Your task to perform on an android device: When is my next meeting? Image 0: 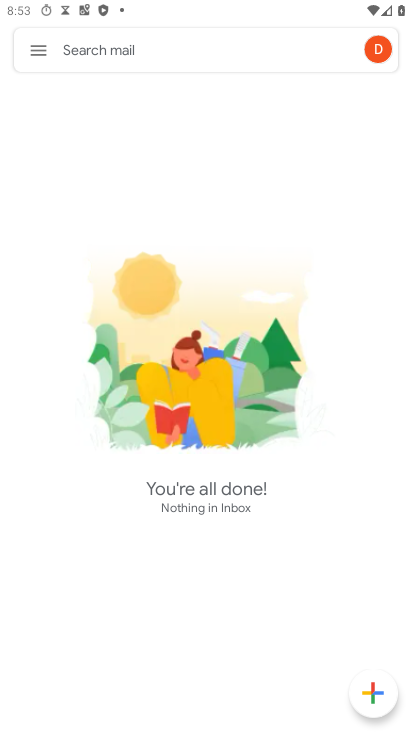
Step 0: press home button
Your task to perform on an android device: When is my next meeting? Image 1: 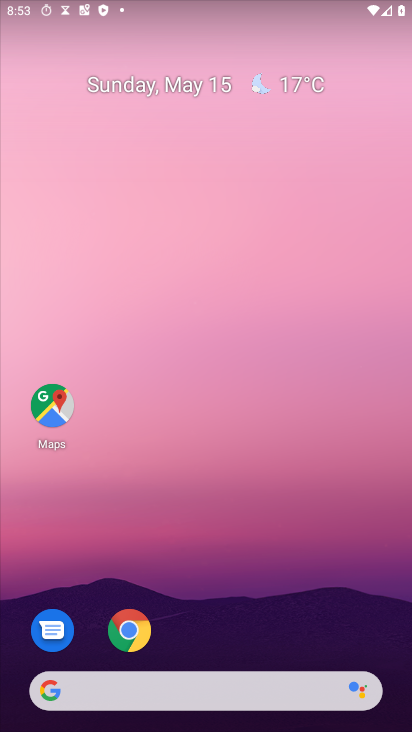
Step 1: drag from (265, 456) to (226, 5)
Your task to perform on an android device: When is my next meeting? Image 2: 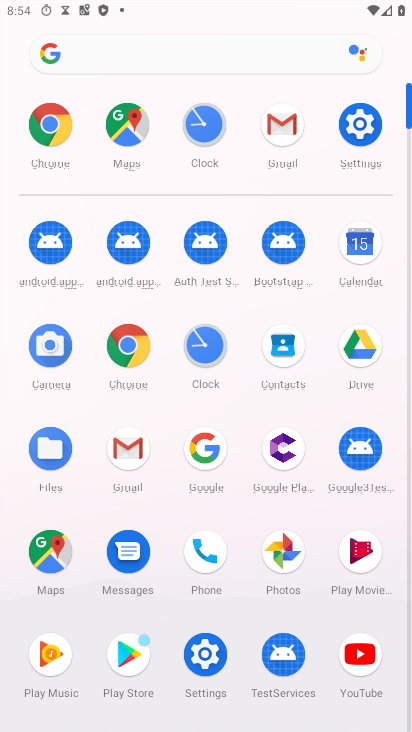
Step 2: click (366, 249)
Your task to perform on an android device: When is my next meeting? Image 3: 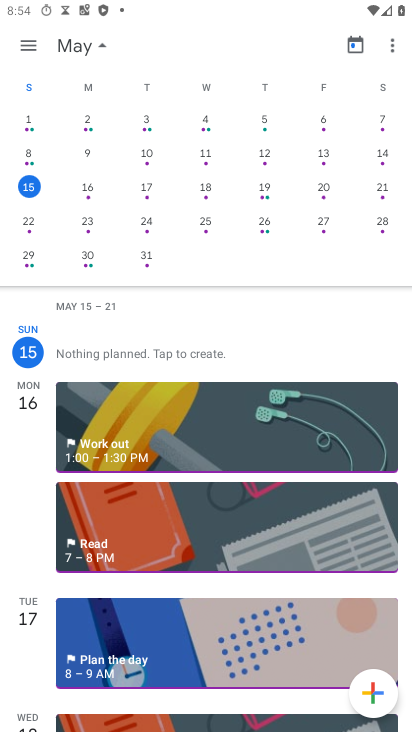
Step 3: click (90, 188)
Your task to perform on an android device: When is my next meeting? Image 4: 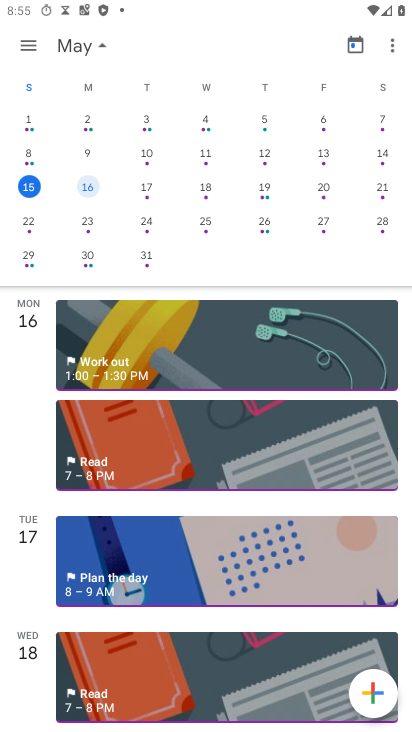
Step 4: task complete